Your task to perform on an android device: turn vacation reply on in the gmail app Image 0: 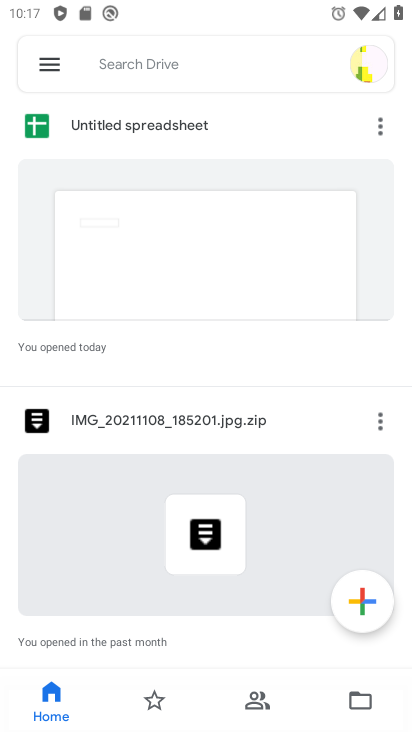
Step 0: press home button
Your task to perform on an android device: turn vacation reply on in the gmail app Image 1: 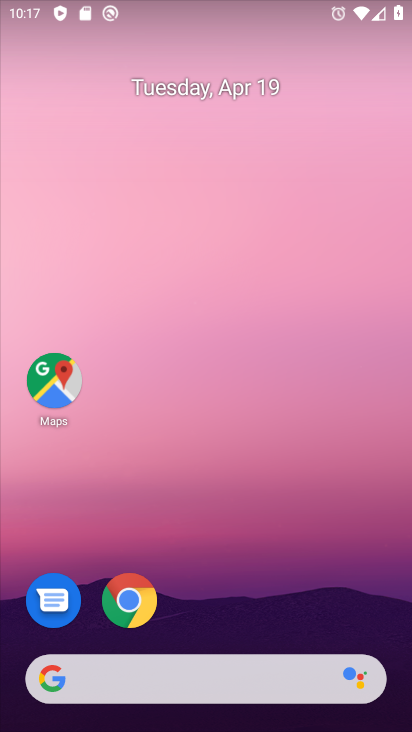
Step 1: drag from (306, 615) to (214, 61)
Your task to perform on an android device: turn vacation reply on in the gmail app Image 2: 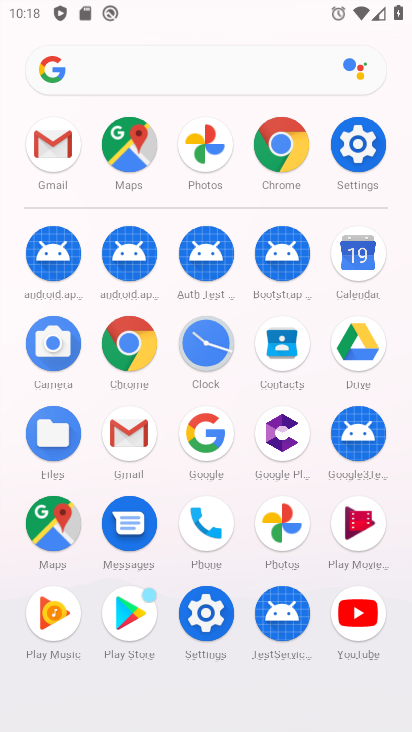
Step 2: click (128, 437)
Your task to perform on an android device: turn vacation reply on in the gmail app Image 3: 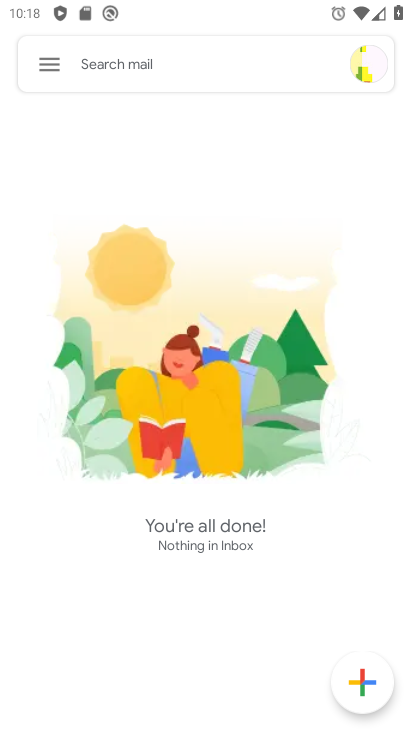
Step 3: click (45, 75)
Your task to perform on an android device: turn vacation reply on in the gmail app Image 4: 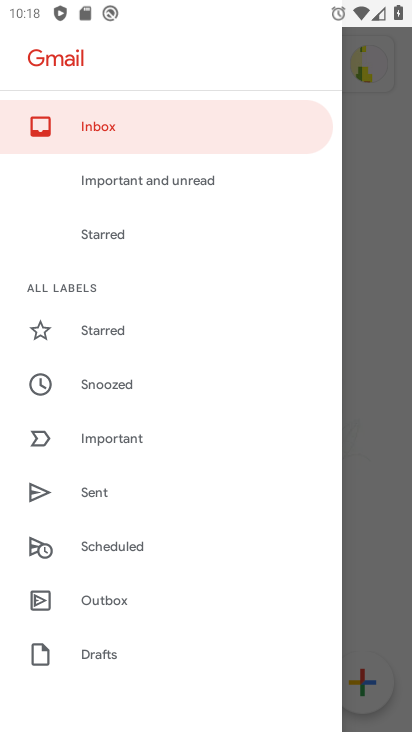
Step 4: drag from (144, 616) to (157, 220)
Your task to perform on an android device: turn vacation reply on in the gmail app Image 5: 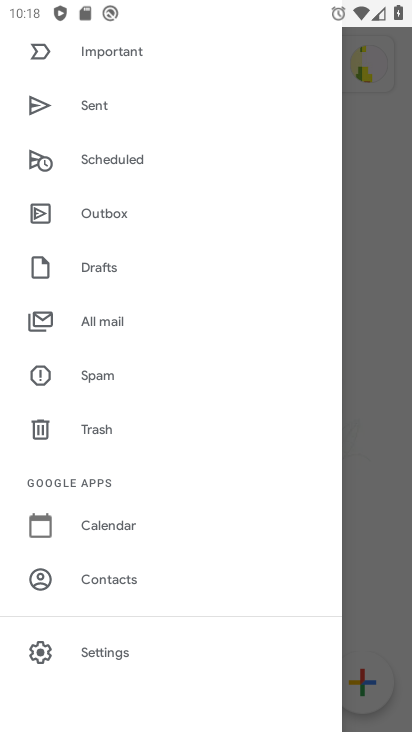
Step 5: click (99, 643)
Your task to perform on an android device: turn vacation reply on in the gmail app Image 6: 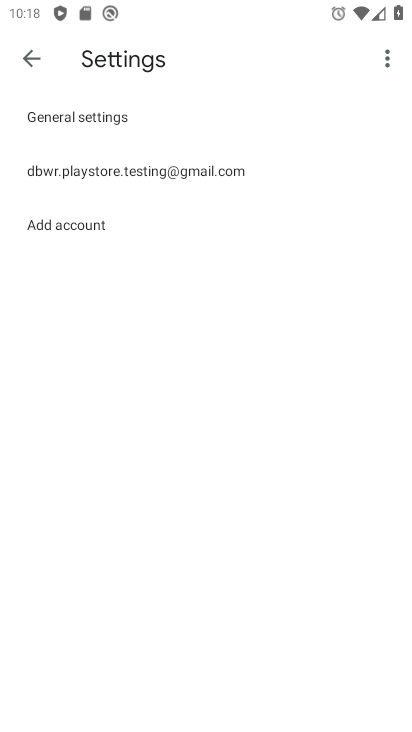
Step 6: click (246, 169)
Your task to perform on an android device: turn vacation reply on in the gmail app Image 7: 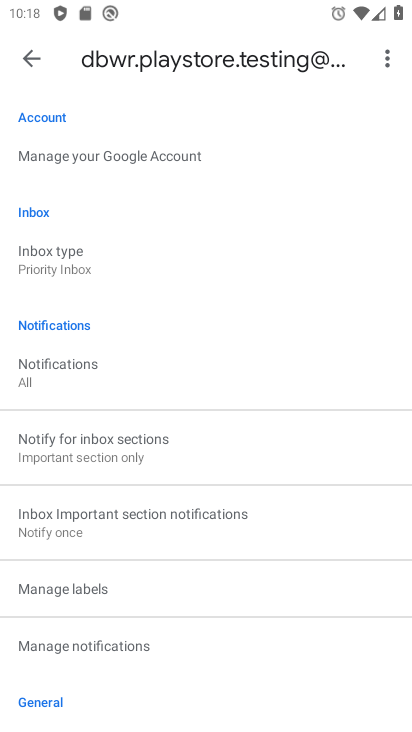
Step 7: drag from (145, 691) to (205, 281)
Your task to perform on an android device: turn vacation reply on in the gmail app Image 8: 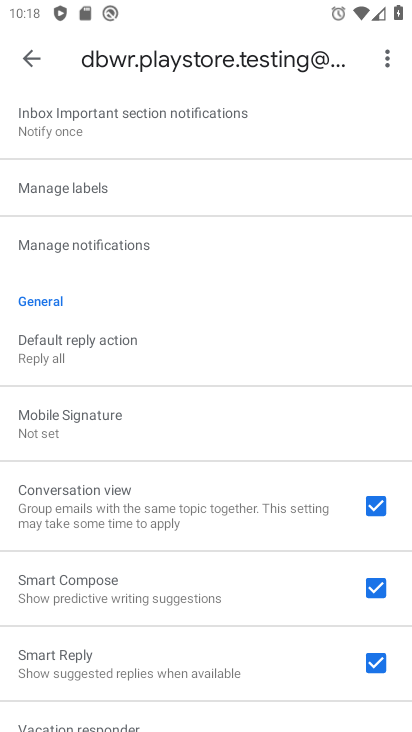
Step 8: drag from (94, 659) to (183, 222)
Your task to perform on an android device: turn vacation reply on in the gmail app Image 9: 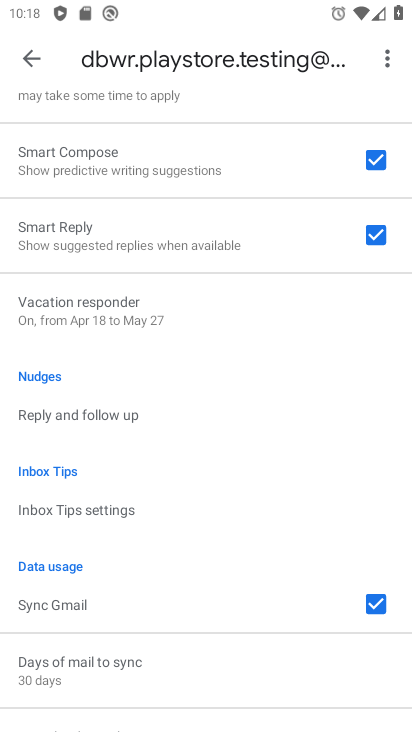
Step 9: click (222, 315)
Your task to perform on an android device: turn vacation reply on in the gmail app Image 10: 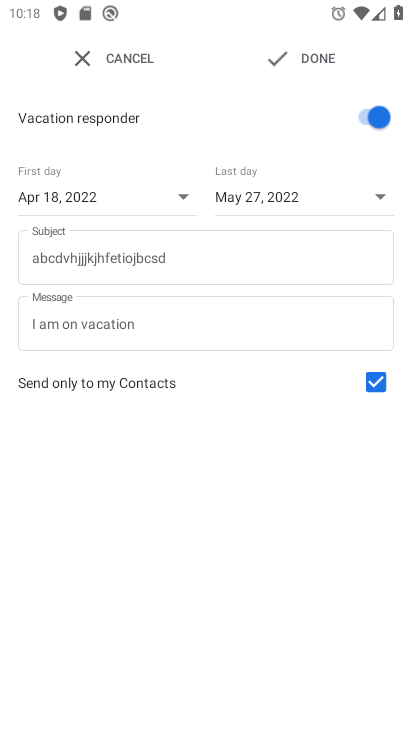
Step 10: task complete